Your task to perform on an android device: See recent photos Image 0: 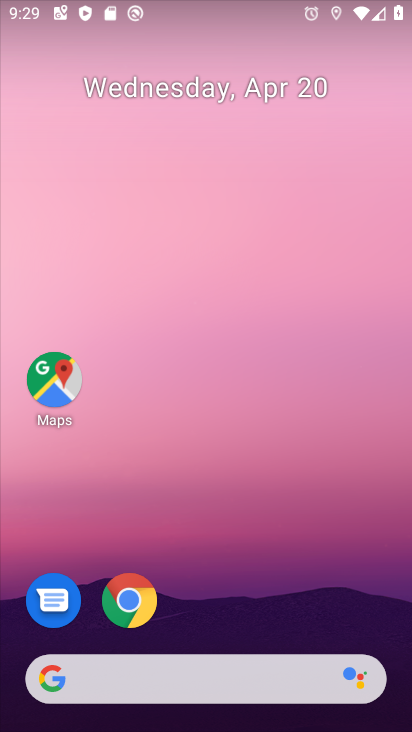
Step 0: drag from (231, 639) to (196, 135)
Your task to perform on an android device: See recent photos Image 1: 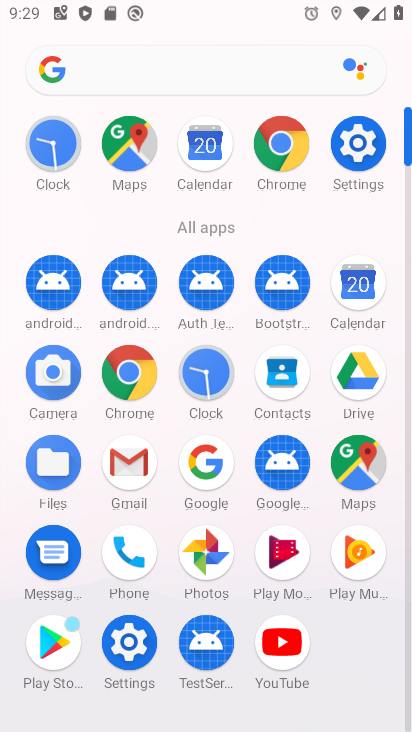
Step 1: click (197, 553)
Your task to perform on an android device: See recent photos Image 2: 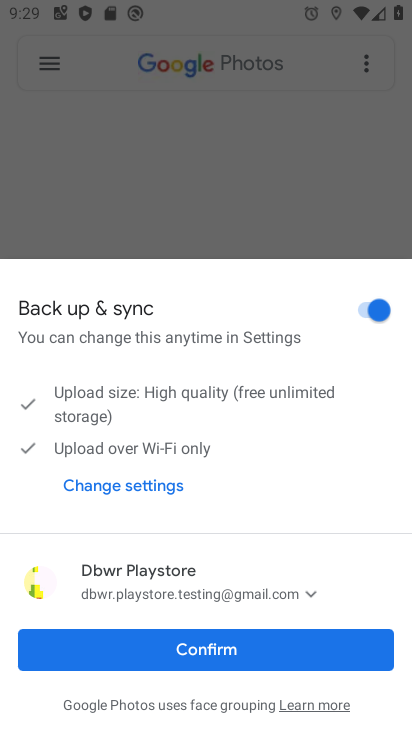
Step 2: click (238, 648)
Your task to perform on an android device: See recent photos Image 3: 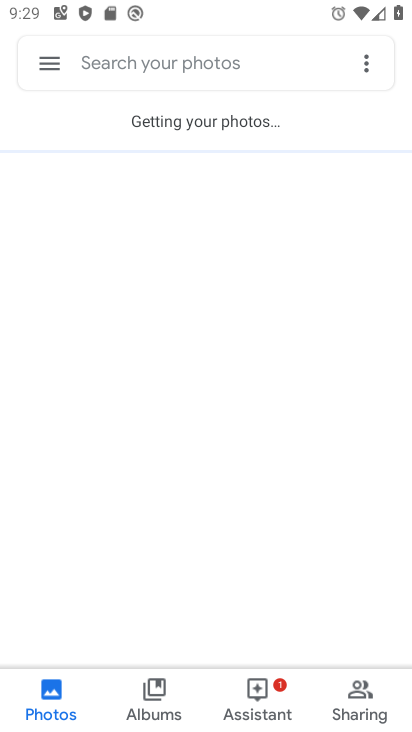
Step 3: click (161, 683)
Your task to perform on an android device: See recent photos Image 4: 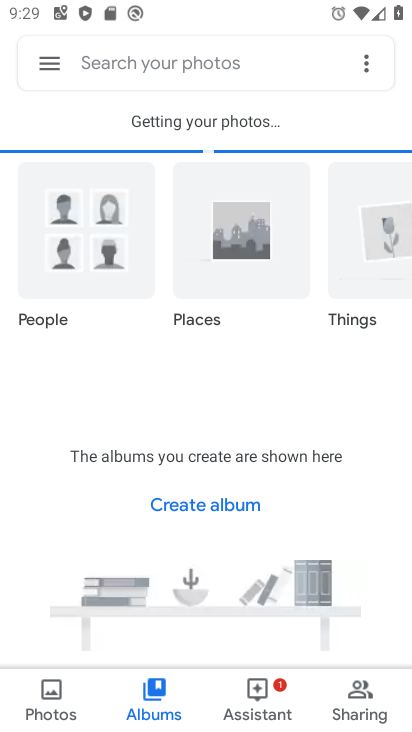
Step 4: click (49, 705)
Your task to perform on an android device: See recent photos Image 5: 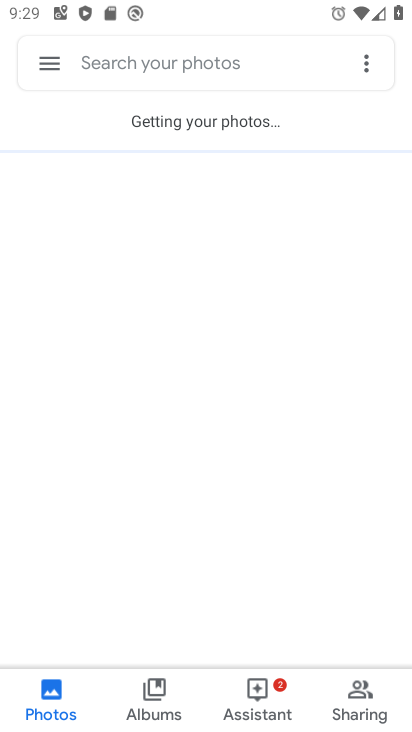
Step 5: drag from (210, 220) to (216, 571)
Your task to perform on an android device: See recent photos Image 6: 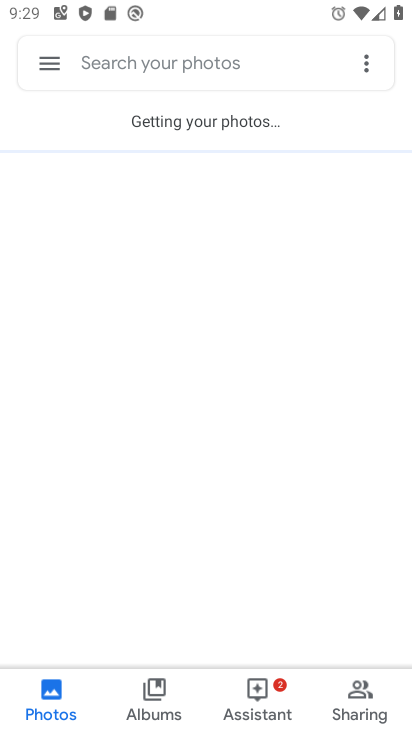
Step 6: click (217, 115)
Your task to perform on an android device: See recent photos Image 7: 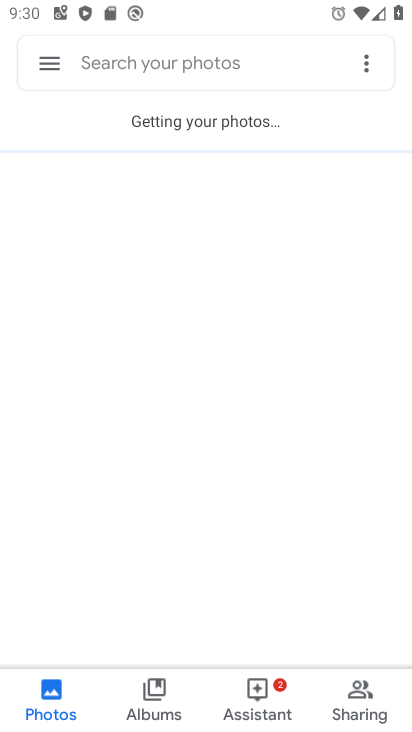
Step 7: click (45, 47)
Your task to perform on an android device: See recent photos Image 8: 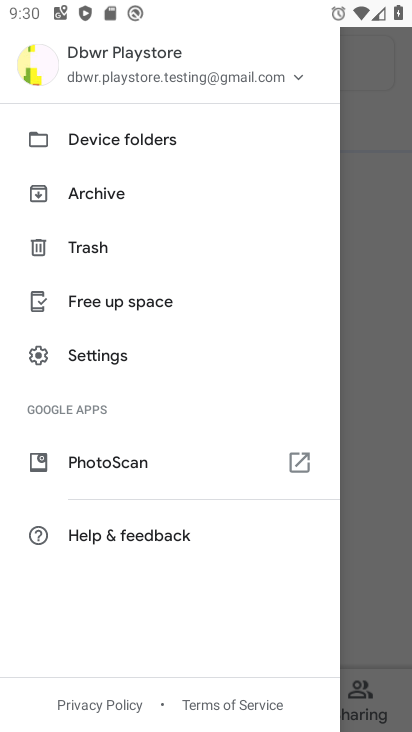
Step 8: click (369, 244)
Your task to perform on an android device: See recent photos Image 9: 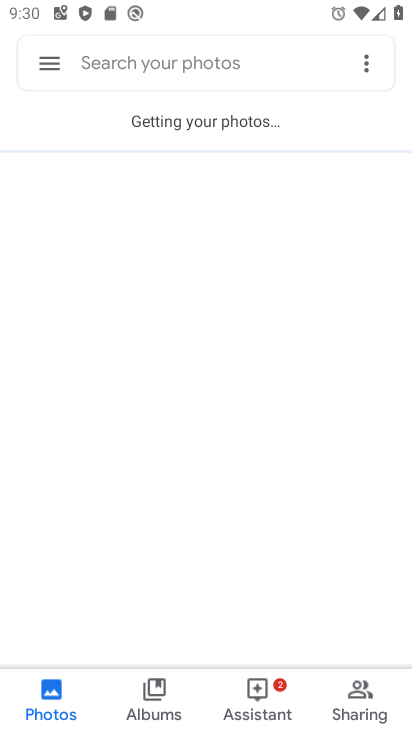
Step 9: click (162, 705)
Your task to perform on an android device: See recent photos Image 10: 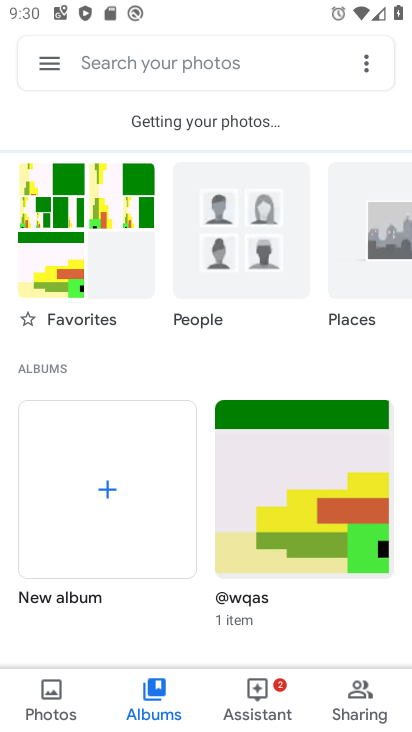
Step 10: click (257, 698)
Your task to perform on an android device: See recent photos Image 11: 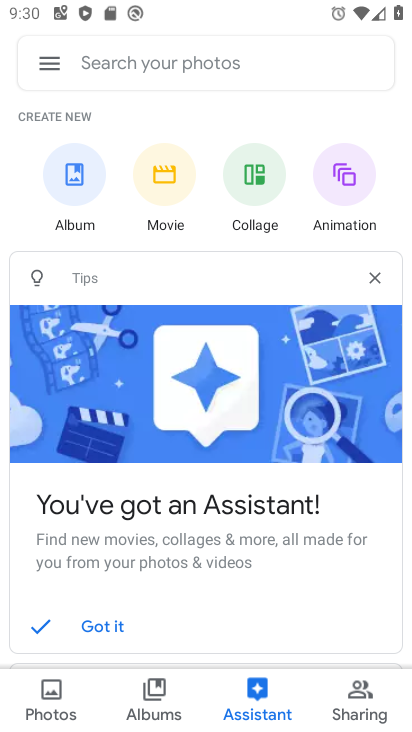
Step 11: click (53, 686)
Your task to perform on an android device: See recent photos Image 12: 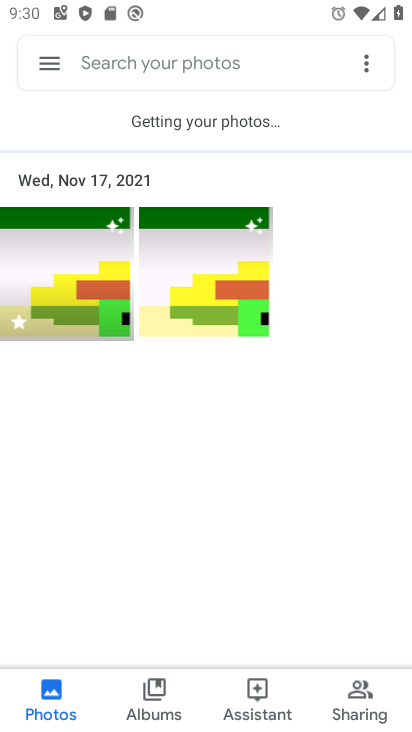
Step 12: task complete